Your task to perform on an android device: Open settings on Google Maps Image 0: 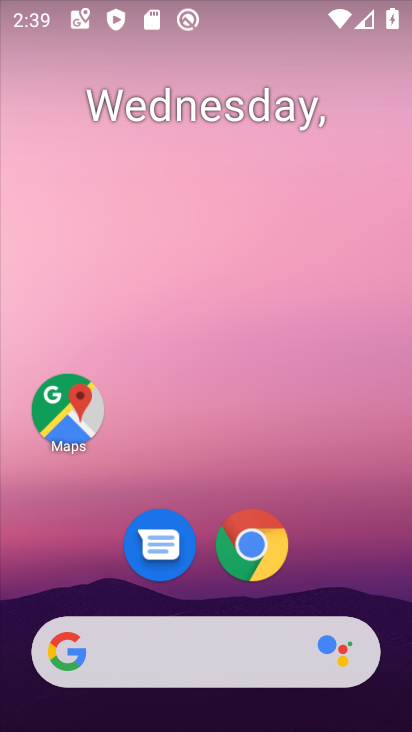
Step 0: press home button
Your task to perform on an android device: Open settings on Google Maps Image 1: 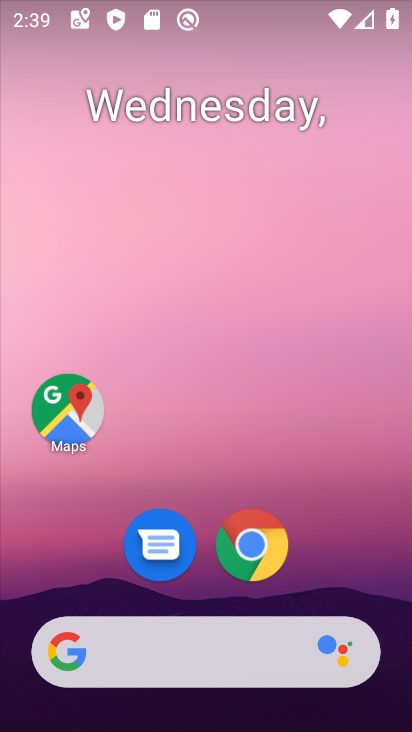
Step 1: click (69, 424)
Your task to perform on an android device: Open settings on Google Maps Image 2: 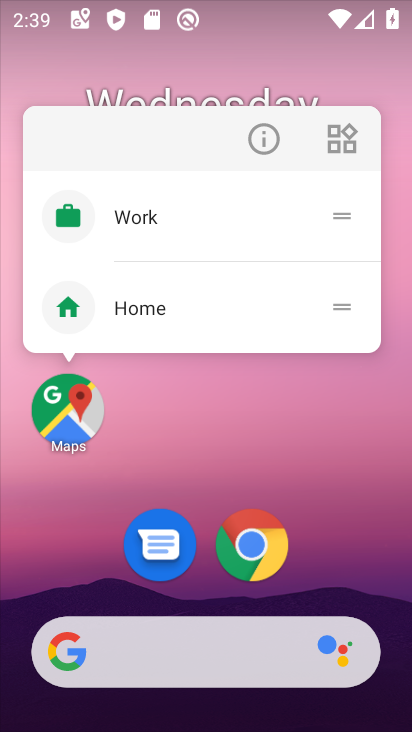
Step 2: click (69, 424)
Your task to perform on an android device: Open settings on Google Maps Image 3: 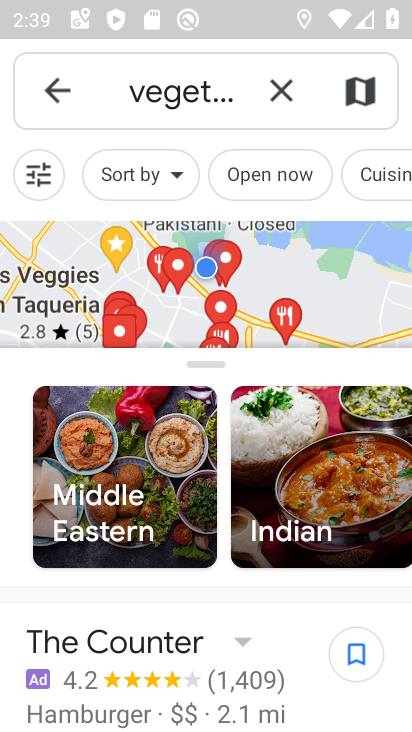
Step 3: click (42, 92)
Your task to perform on an android device: Open settings on Google Maps Image 4: 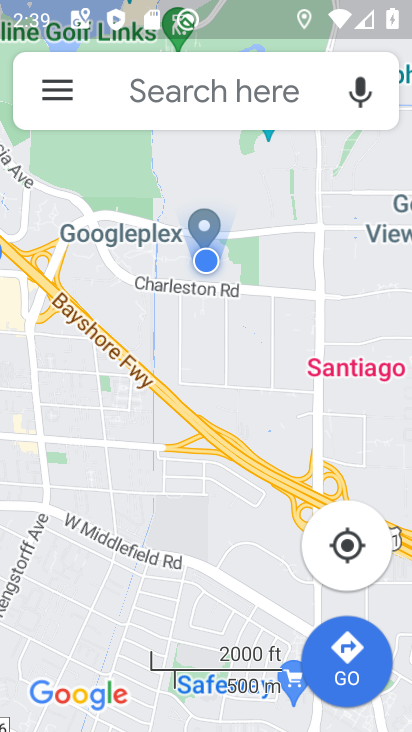
Step 4: click (58, 95)
Your task to perform on an android device: Open settings on Google Maps Image 5: 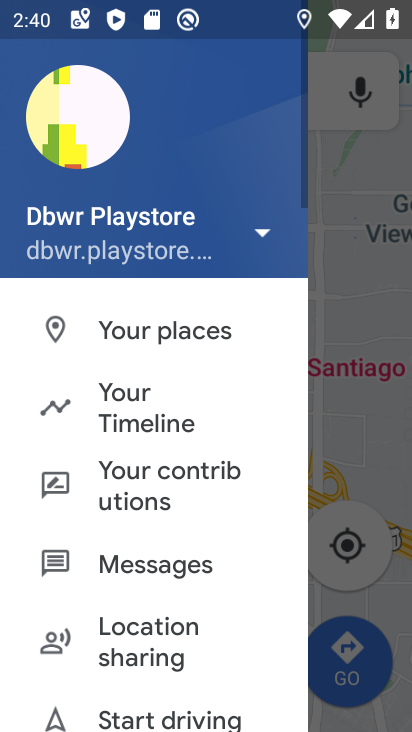
Step 5: drag from (198, 637) to (252, 62)
Your task to perform on an android device: Open settings on Google Maps Image 6: 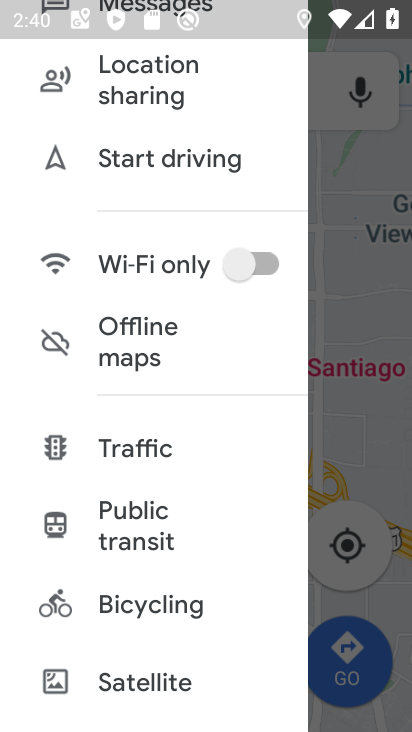
Step 6: drag from (179, 662) to (231, 117)
Your task to perform on an android device: Open settings on Google Maps Image 7: 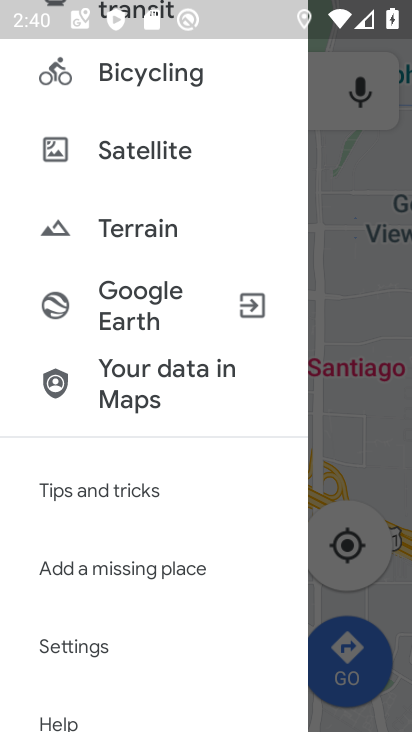
Step 7: click (96, 648)
Your task to perform on an android device: Open settings on Google Maps Image 8: 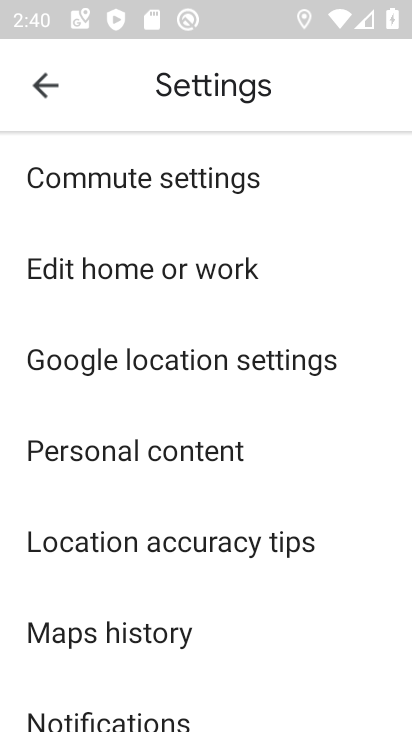
Step 8: task complete